Your task to perform on an android device: Open the map Image 0: 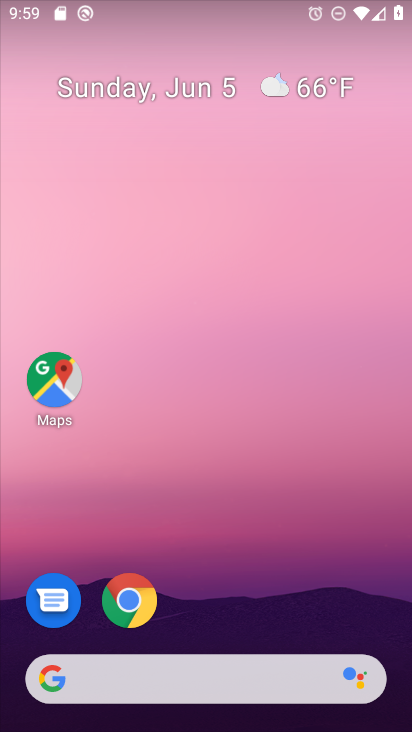
Step 0: drag from (369, 544) to (104, 39)
Your task to perform on an android device: Open the map Image 1: 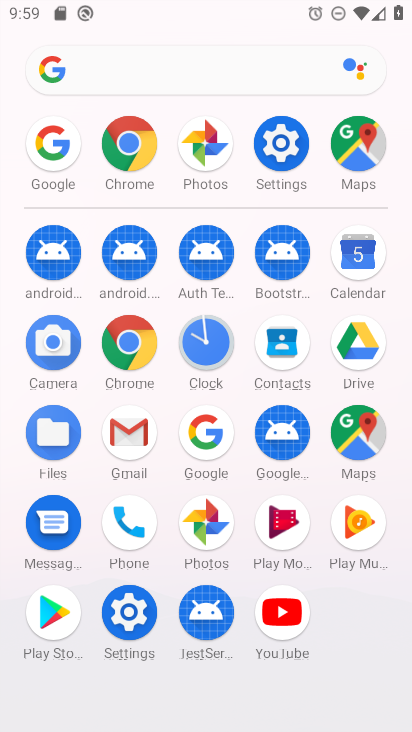
Step 1: click (385, 431)
Your task to perform on an android device: Open the map Image 2: 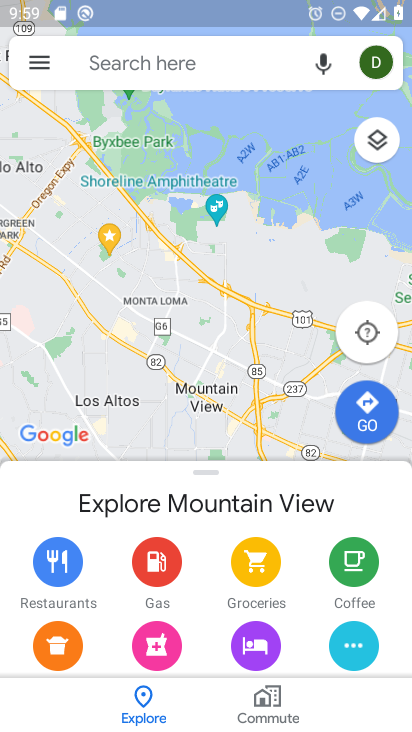
Step 2: task complete